Your task to perform on an android device: toggle improve location accuracy Image 0: 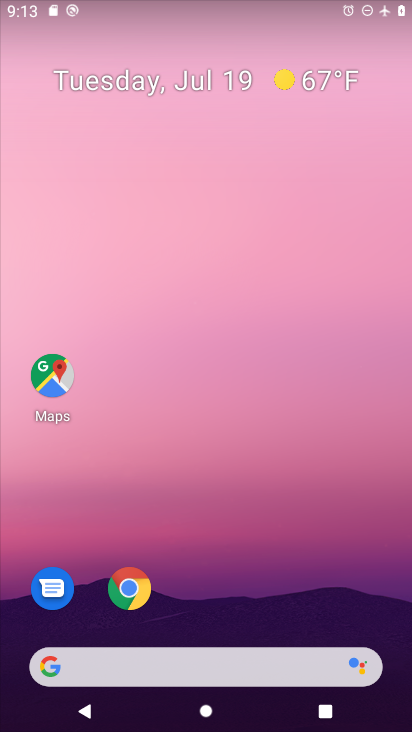
Step 0: drag from (332, 597) to (339, 136)
Your task to perform on an android device: toggle improve location accuracy Image 1: 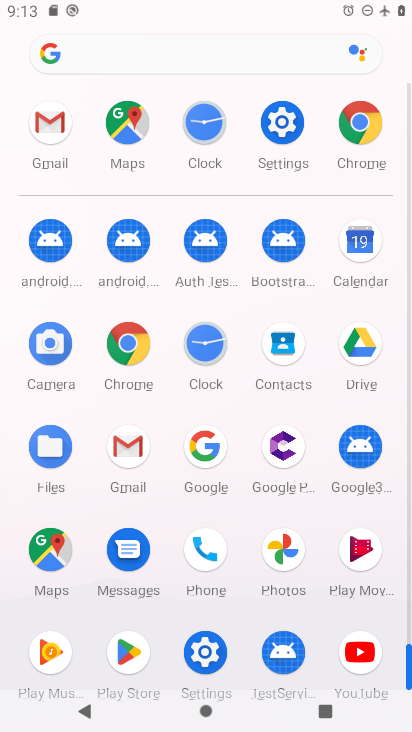
Step 1: click (282, 126)
Your task to perform on an android device: toggle improve location accuracy Image 2: 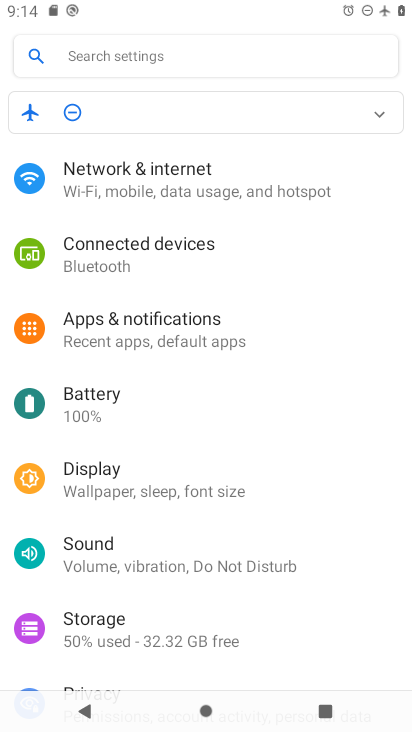
Step 2: drag from (338, 555) to (366, 181)
Your task to perform on an android device: toggle improve location accuracy Image 3: 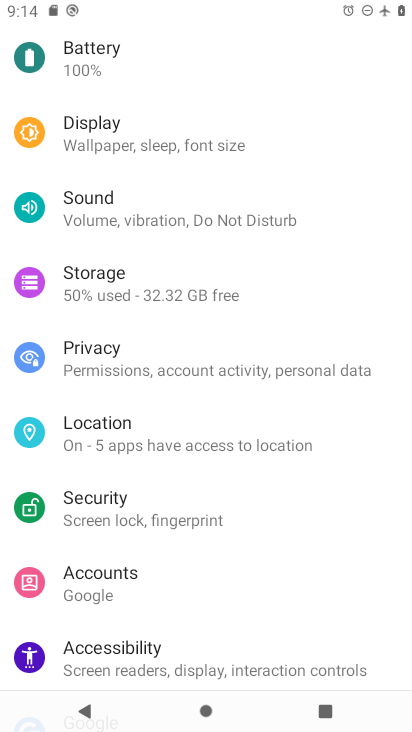
Step 3: click (280, 440)
Your task to perform on an android device: toggle improve location accuracy Image 4: 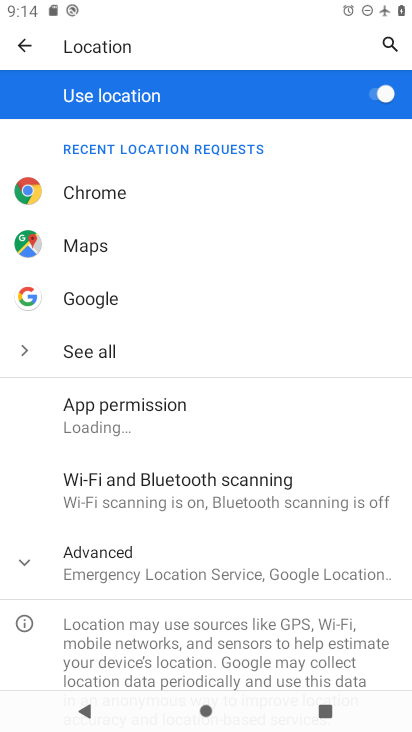
Step 4: click (311, 563)
Your task to perform on an android device: toggle improve location accuracy Image 5: 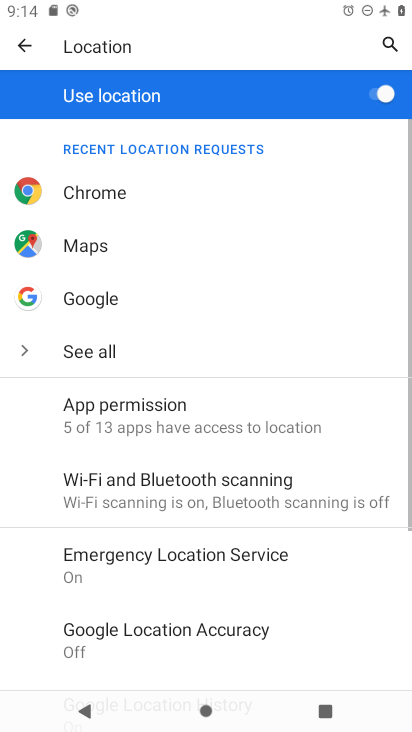
Step 5: drag from (310, 554) to (338, 339)
Your task to perform on an android device: toggle improve location accuracy Image 6: 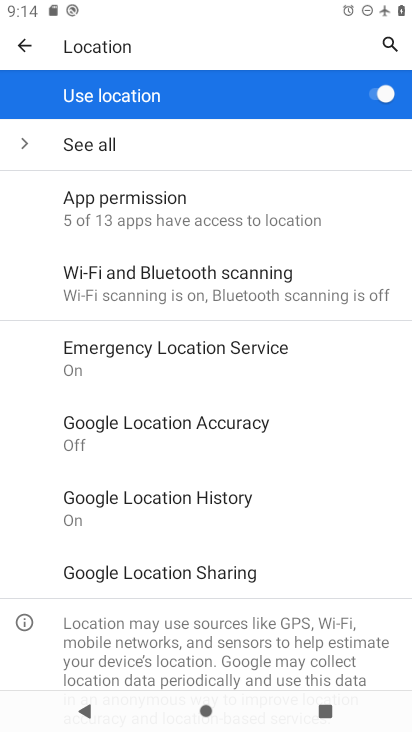
Step 6: drag from (329, 512) to (337, 413)
Your task to perform on an android device: toggle improve location accuracy Image 7: 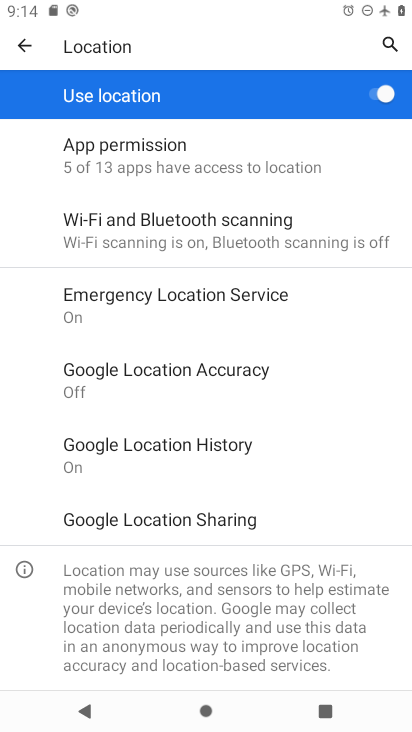
Step 7: drag from (321, 570) to (322, 449)
Your task to perform on an android device: toggle improve location accuracy Image 8: 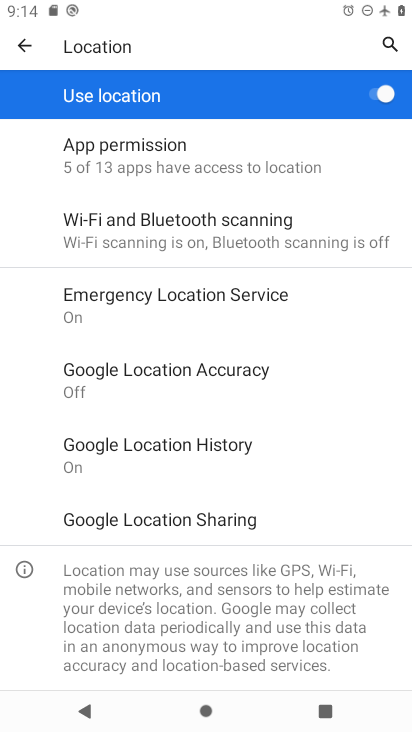
Step 8: click (216, 390)
Your task to perform on an android device: toggle improve location accuracy Image 9: 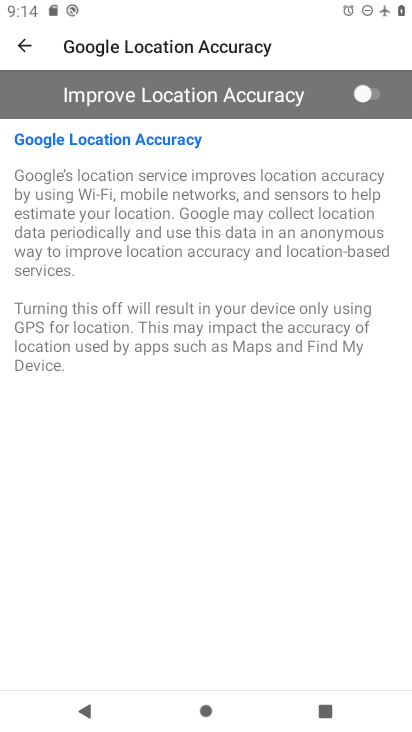
Step 9: click (355, 99)
Your task to perform on an android device: toggle improve location accuracy Image 10: 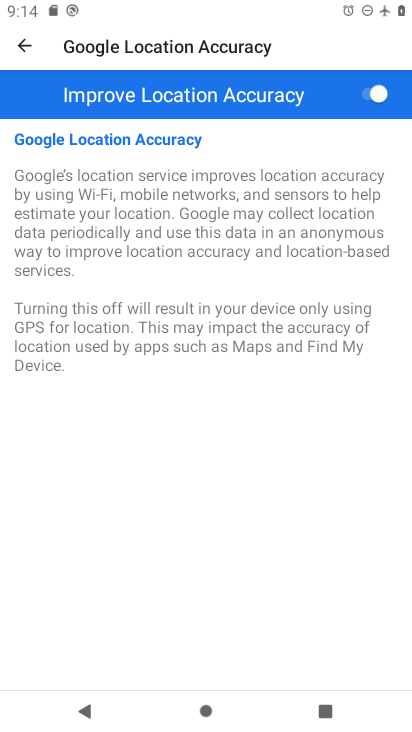
Step 10: task complete